Your task to perform on an android device: open sync settings in chrome Image 0: 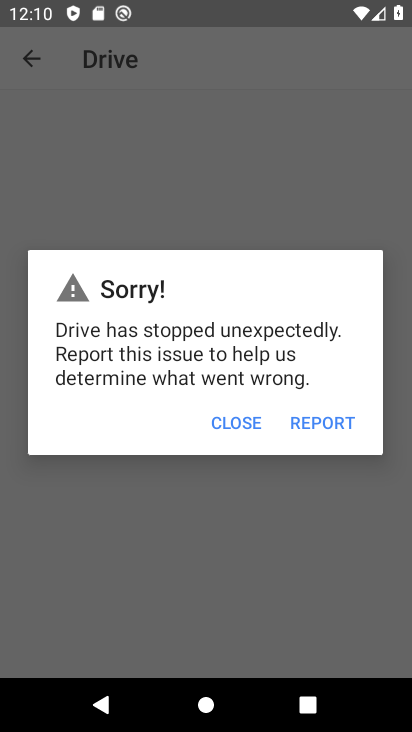
Step 0: press home button
Your task to perform on an android device: open sync settings in chrome Image 1: 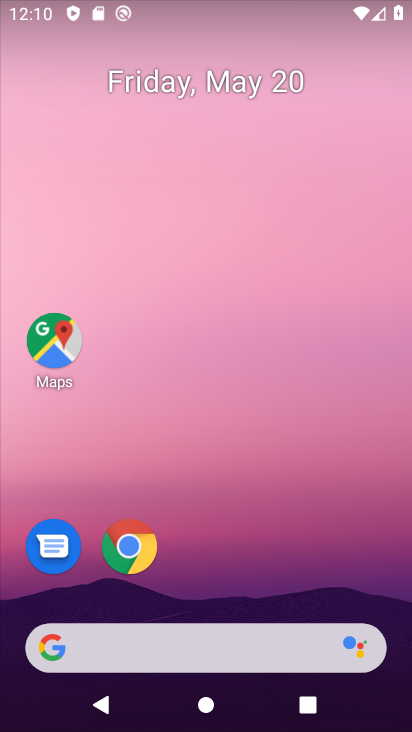
Step 1: click (126, 554)
Your task to perform on an android device: open sync settings in chrome Image 2: 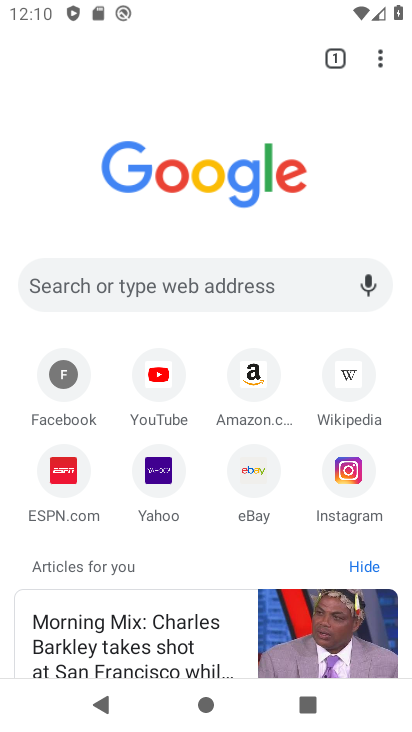
Step 2: click (379, 55)
Your task to perform on an android device: open sync settings in chrome Image 3: 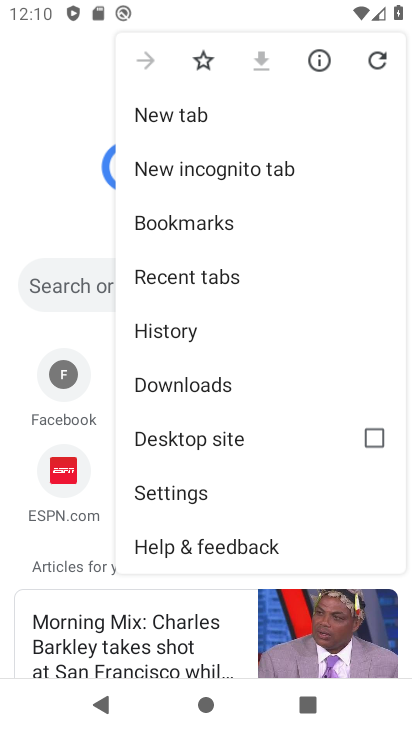
Step 3: click (189, 486)
Your task to perform on an android device: open sync settings in chrome Image 4: 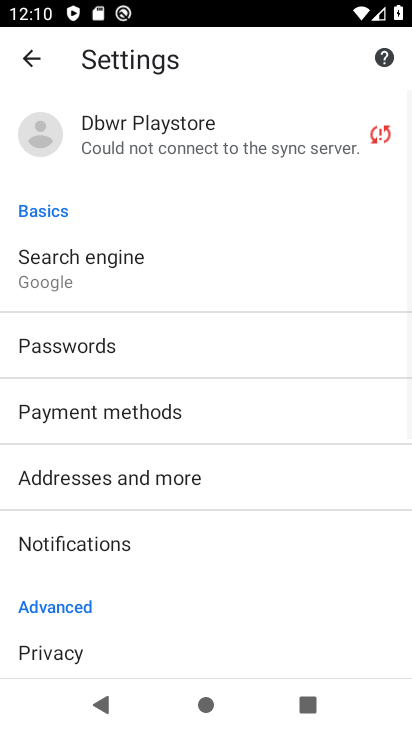
Step 4: click (227, 135)
Your task to perform on an android device: open sync settings in chrome Image 5: 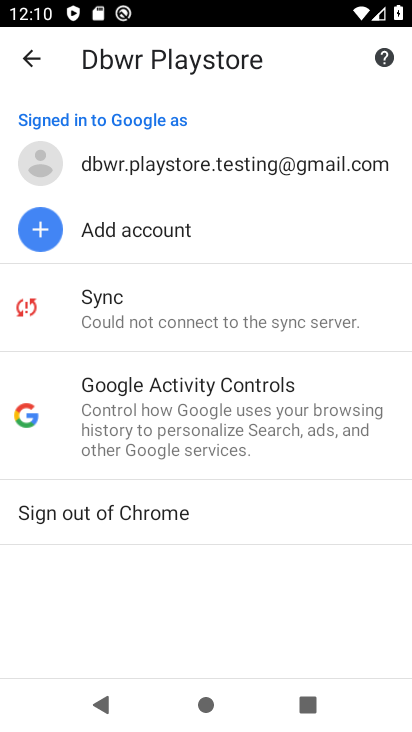
Step 5: click (192, 308)
Your task to perform on an android device: open sync settings in chrome Image 6: 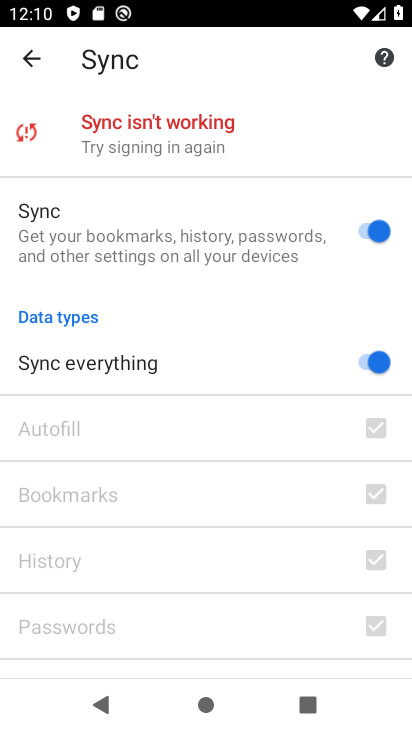
Step 6: task complete